Your task to perform on an android device: Go to Yahoo.com Image 0: 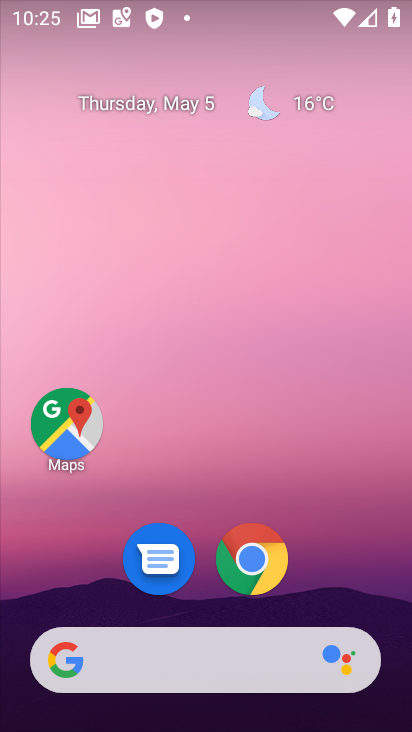
Step 0: click (273, 553)
Your task to perform on an android device: Go to Yahoo.com Image 1: 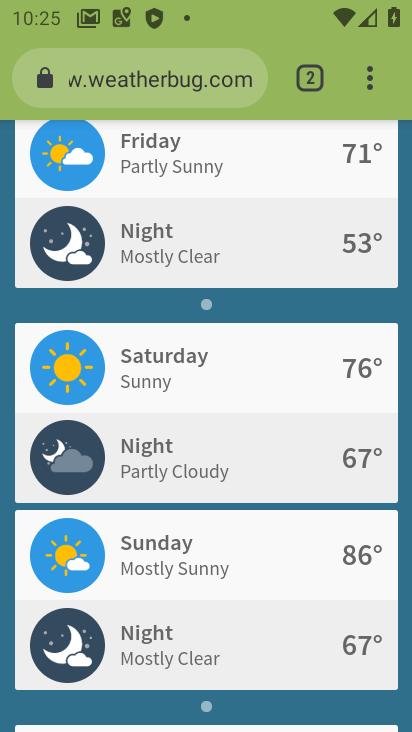
Step 1: click (129, 83)
Your task to perform on an android device: Go to Yahoo.com Image 2: 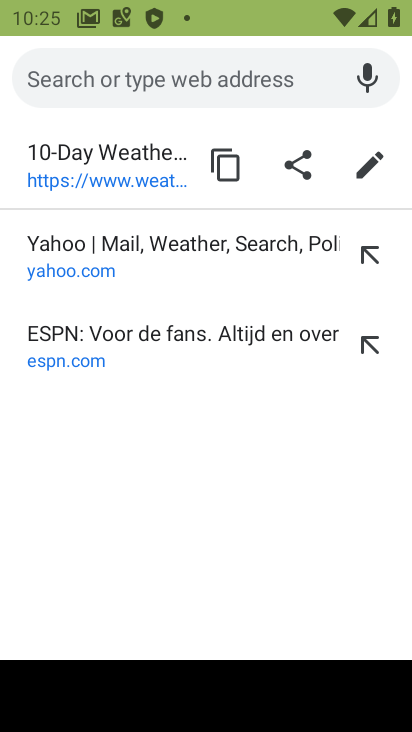
Step 2: type "yahoo.com"
Your task to perform on an android device: Go to Yahoo.com Image 3: 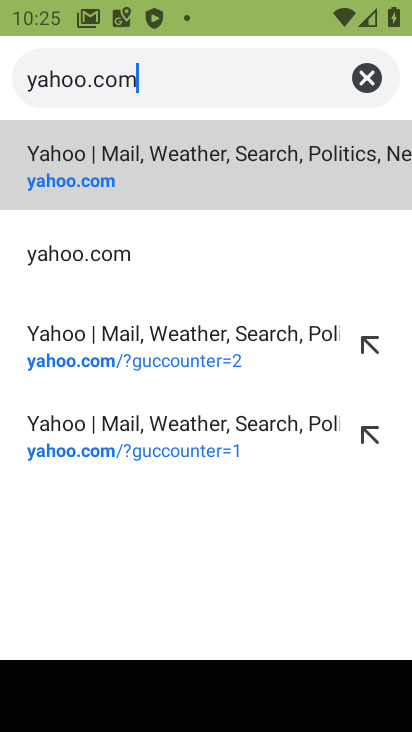
Step 3: click (65, 179)
Your task to perform on an android device: Go to Yahoo.com Image 4: 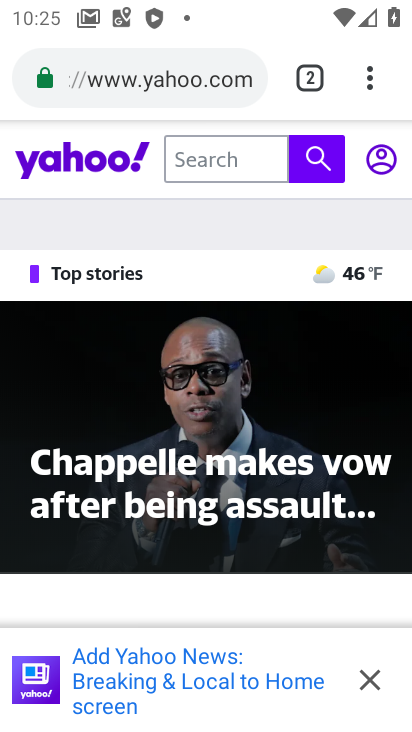
Step 4: task complete